Your task to perform on an android device: find snoozed emails in the gmail app Image 0: 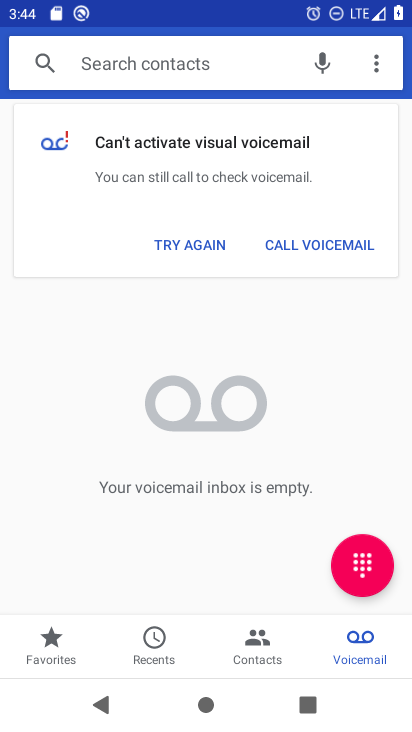
Step 0: press home button
Your task to perform on an android device: find snoozed emails in the gmail app Image 1: 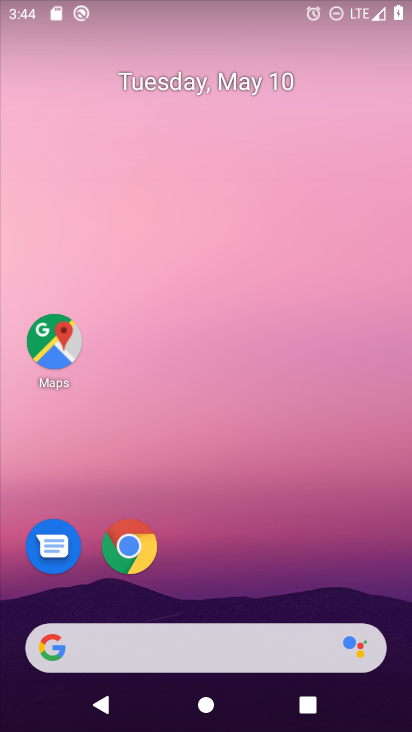
Step 1: drag from (253, 603) to (271, 19)
Your task to perform on an android device: find snoozed emails in the gmail app Image 2: 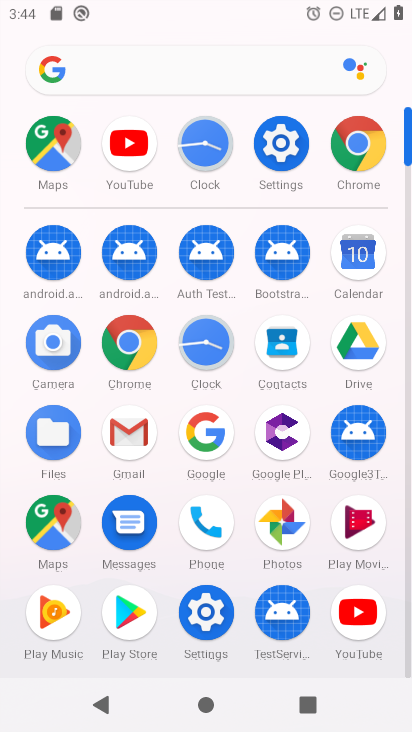
Step 2: click (139, 447)
Your task to perform on an android device: find snoozed emails in the gmail app Image 3: 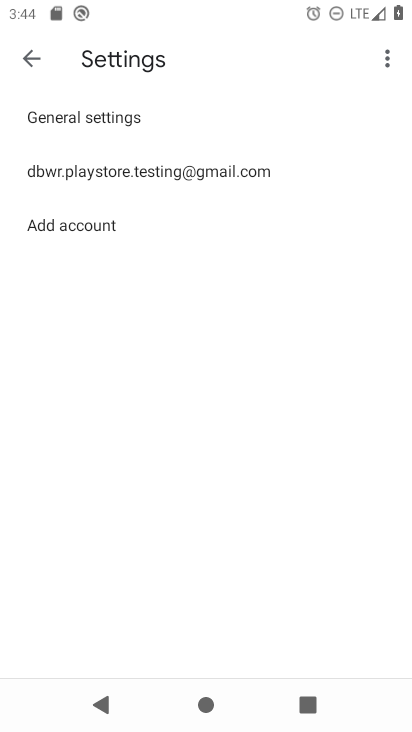
Step 3: click (39, 64)
Your task to perform on an android device: find snoozed emails in the gmail app Image 4: 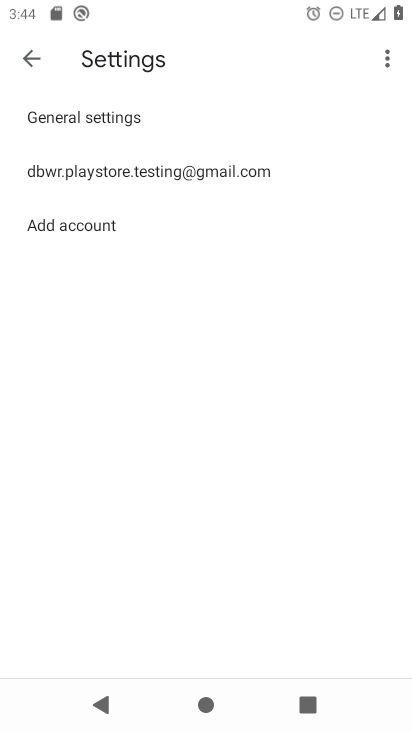
Step 4: click (27, 62)
Your task to perform on an android device: find snoozed emails in the gmail app Image 5: 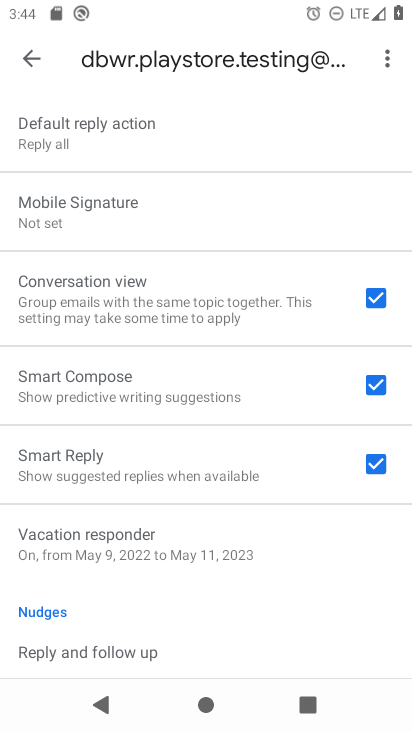
Step 5: click (39, 54)
Your task to perform on an android device: find snoozed emails in the gmail app Image 6: 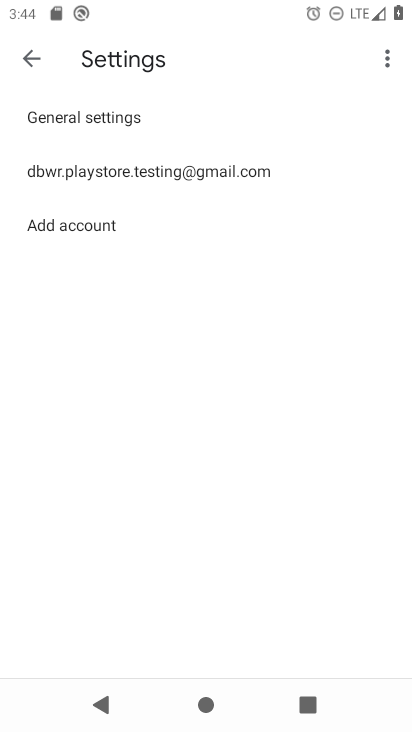
Step 6: click (49, 64)
Your task to perform on an android device: find snoozed emails in the gmail app Image 7: 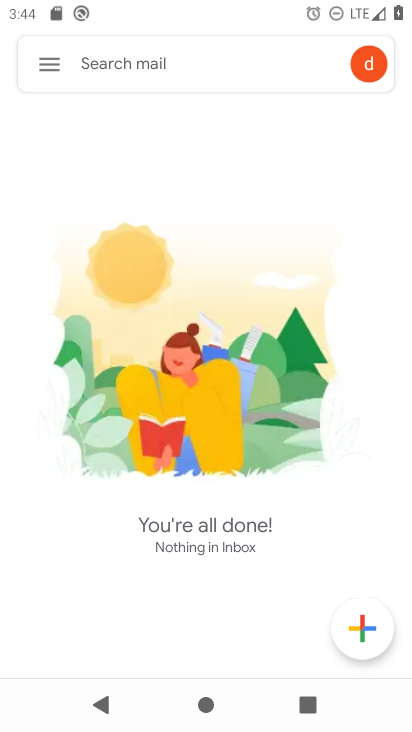
Step 7: click (48, 63)
Your task to perform on an android device: find snoozed emails in the gmail app Image 8: 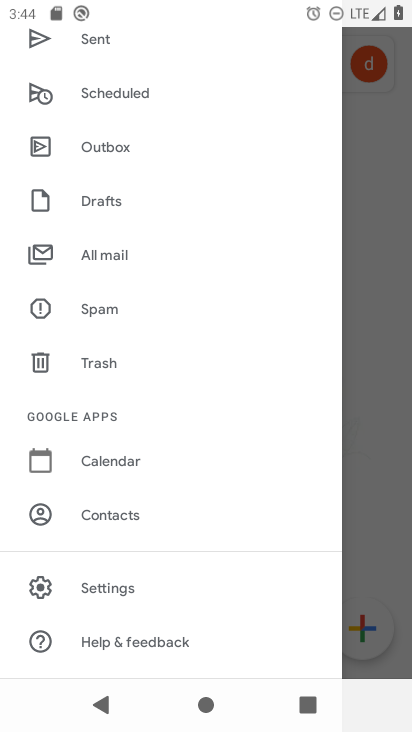
Step 8: drag from (144, 170) to (171, 530)
Your task to perform on an android device: find snoozed emails in the gmail app Image 9: 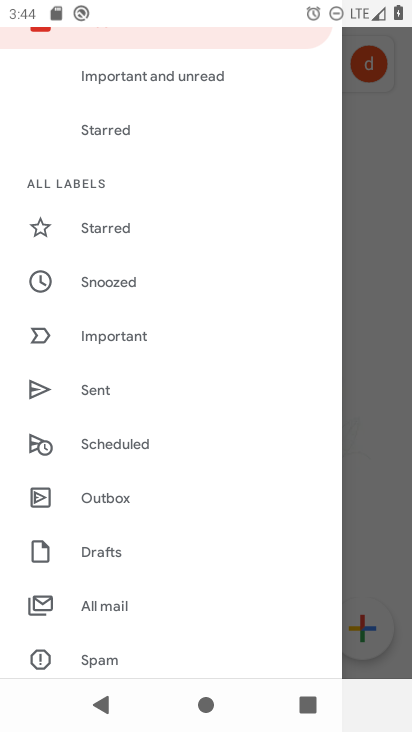
Step 9: click (116, 286)
Your task to perform on an android device: find snoozed emails in the gmail app Image 10: 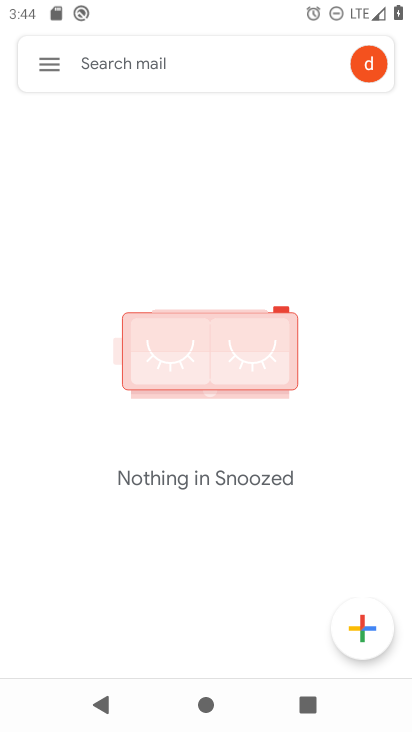
Step 10: task complete